Your task to perform on an android device: Set the phone to "Do not disturb". Image 0: 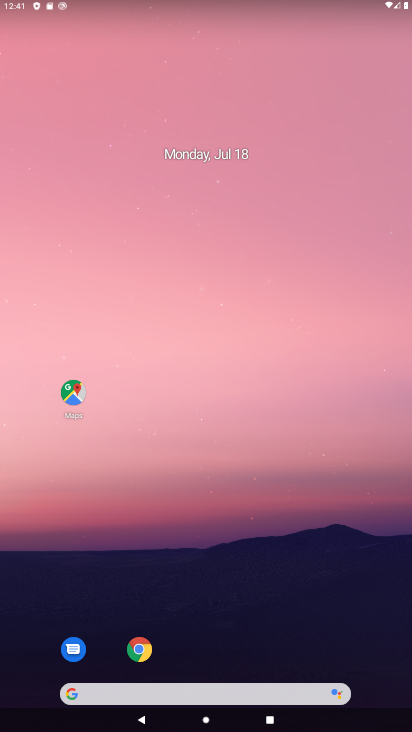
Step 0: click (134, 686)
Your task to perform on an android device: Set the phone to "Do not disturb". Image 1: 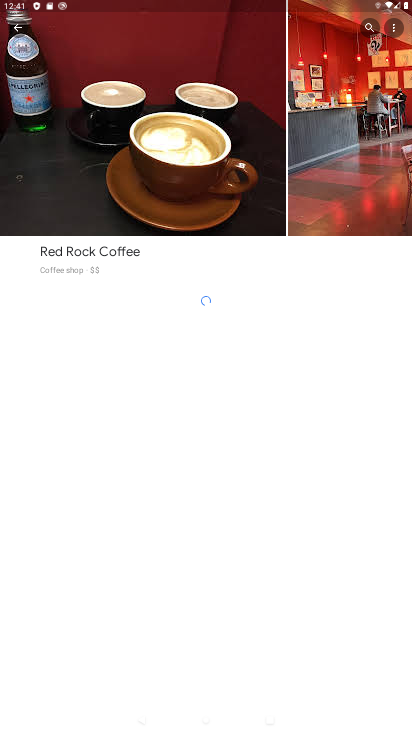
Step 1: press home button
Your task to perform on an android device: Set the phone to "Do not disturb". Image 2: 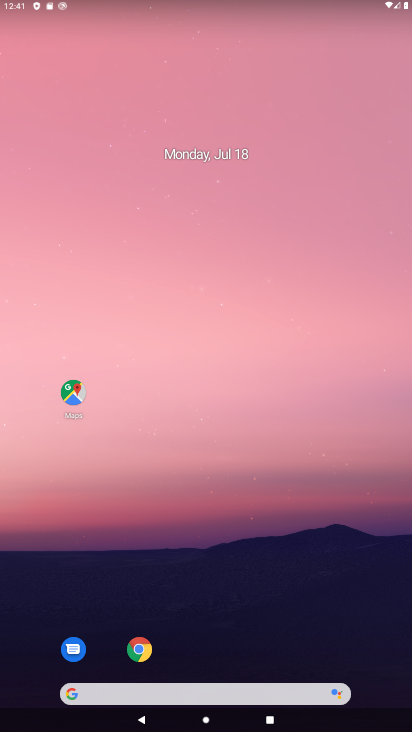
Step 2: drag from (45, 703) to (224, 153)
Your task to perform on an android device: Set the phone to "Do not disturb". Image 3: 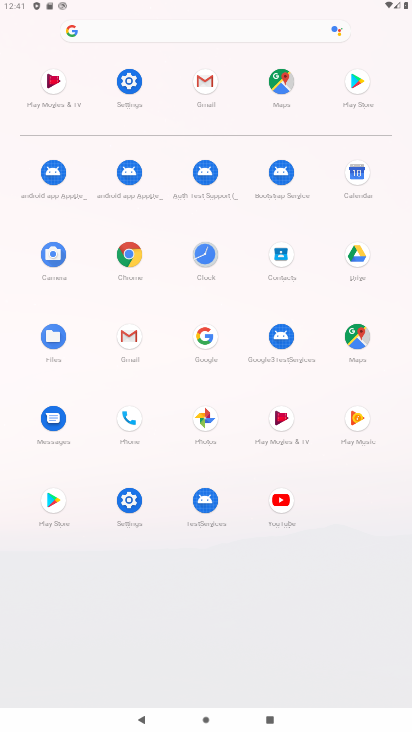
Step 3: click (137, 506)
Your task to perform on an android device: Set the phone to "Do not disturb". Image 4: 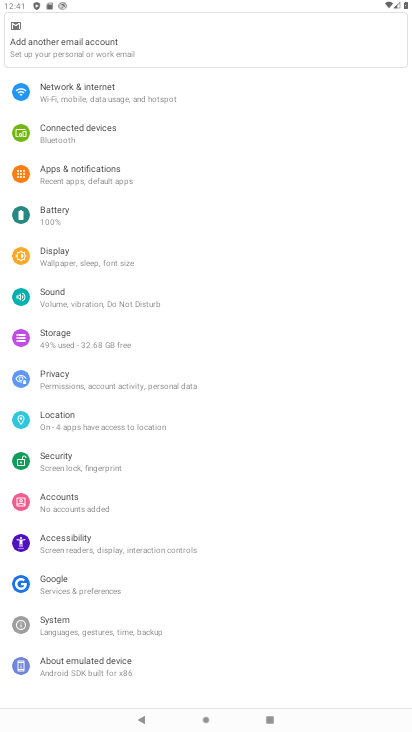
Step 4: click (86, 292)
Your task to perform on an android device: Set the phone to "Do not disturb". Image 5: 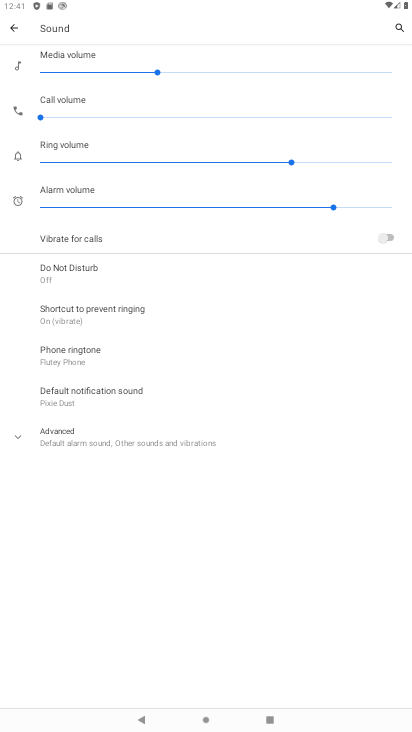
Step 5: click (79, 271)
Your task to perform on an android device: Set the phone to "Do not disturb". Image 6: 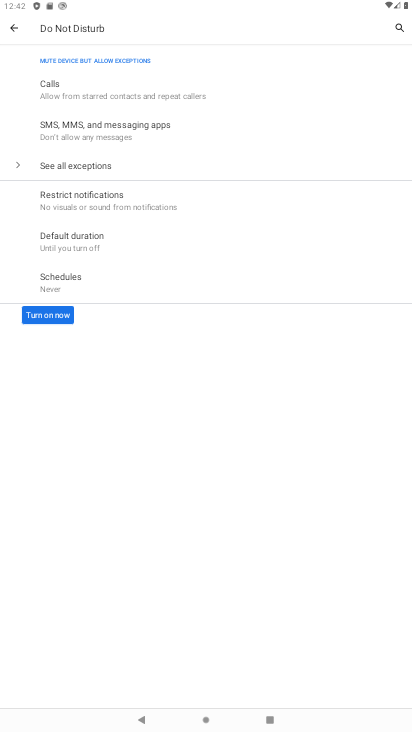
Step 6: click (60, 317)
Your task to perform on an android device: Set the phone to "Do not disturb". Image 7: 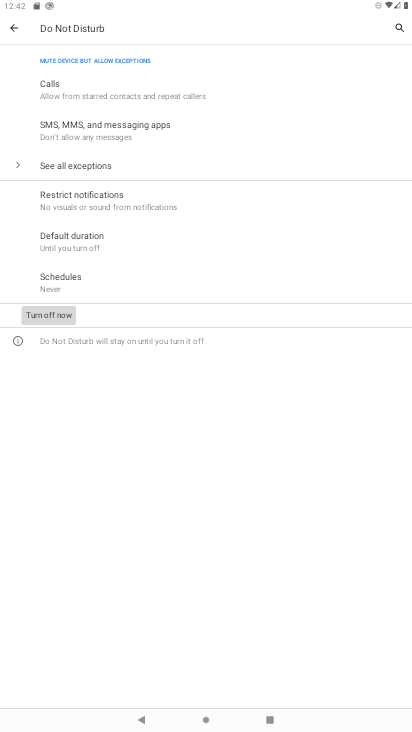
Step 7: task complete